Your task to perform on an android device: Open Yahoo.com Image 0: 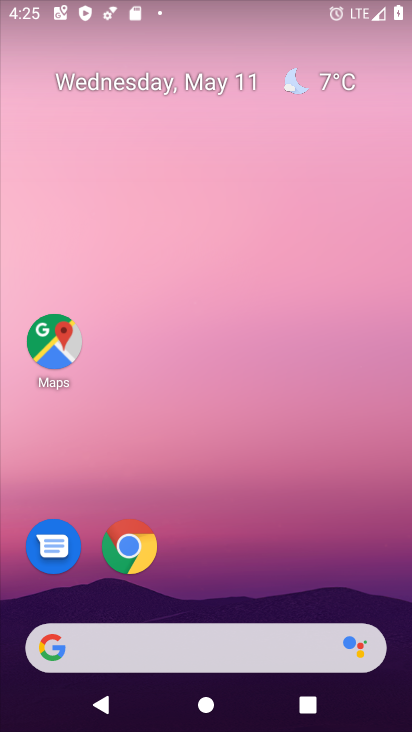
Step 0: drag from (318, 442) to (399, 0)
Your task to perform on an android device: Open Yahoo.com Image 1: 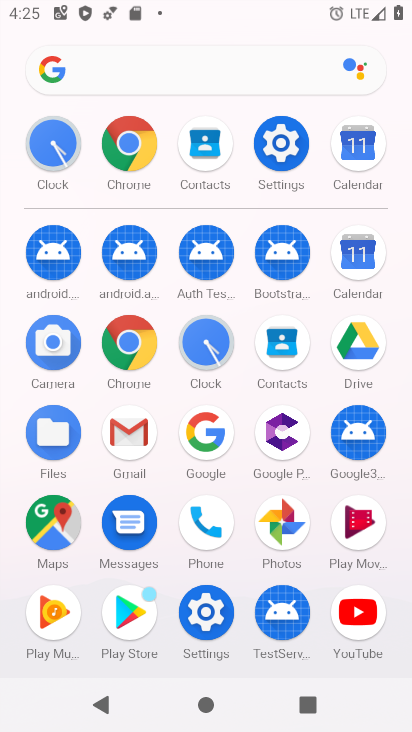
Step 1: click (127, 359)
Your task to perform on an android device: Open Yahoo.com Image 2: 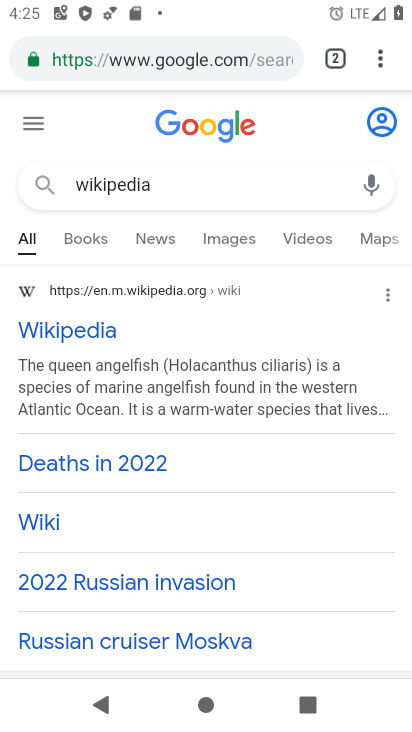
Step 2: click (126, 63)
Your task to perform on an android device: Open Yahoo.com Image 3: 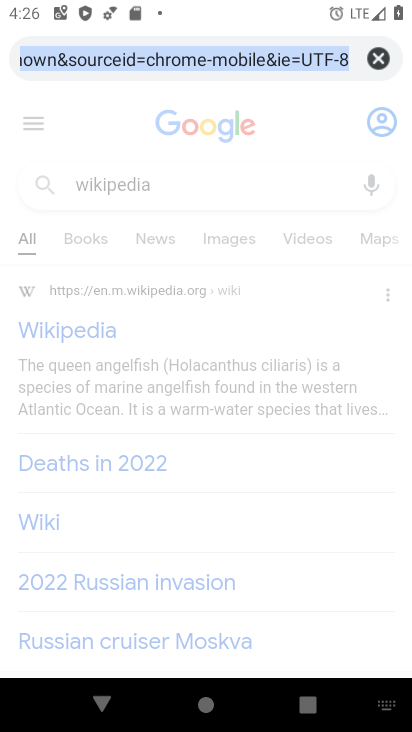
Step 3: click (376, 66)
Your task to perform on an android device: Open Yahoo.com Image 4: 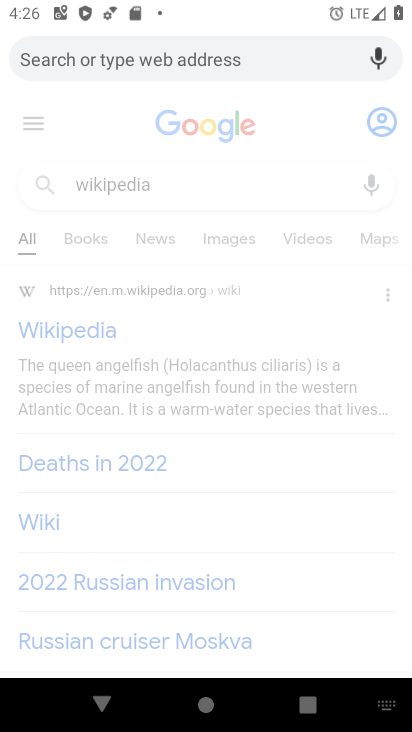
Step 4: type "yahoo.com"
Your task to perform on an android device: Open Yahoo.com Image 5: 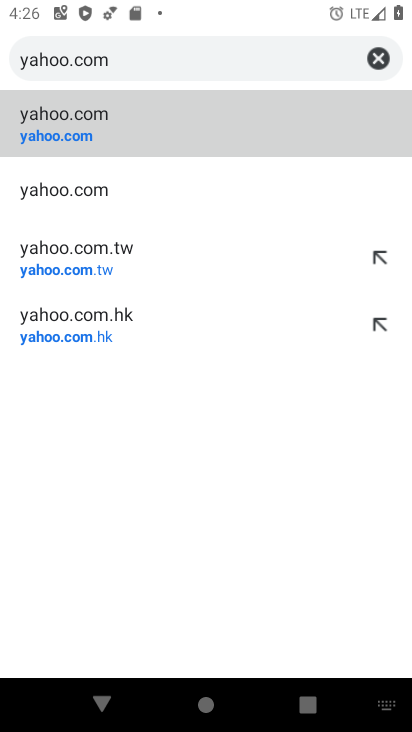
Step 5: click (175, 138)
Your task to perform on an android device: Open Yahoo.com Image 6: 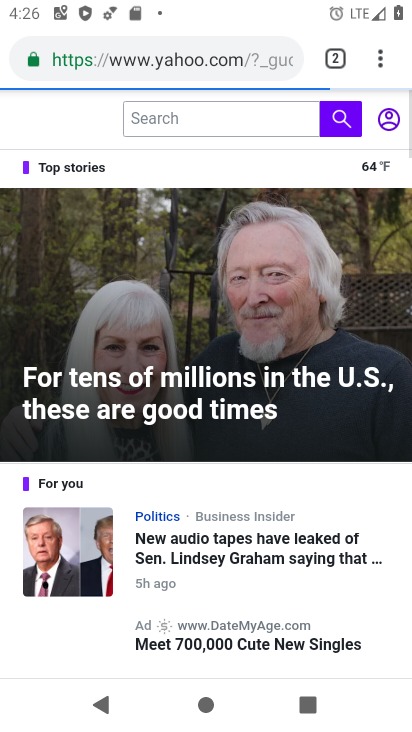
Step 6: task complete